Your task to perform on an android device: Show me popular videos on Youtube Image 0: 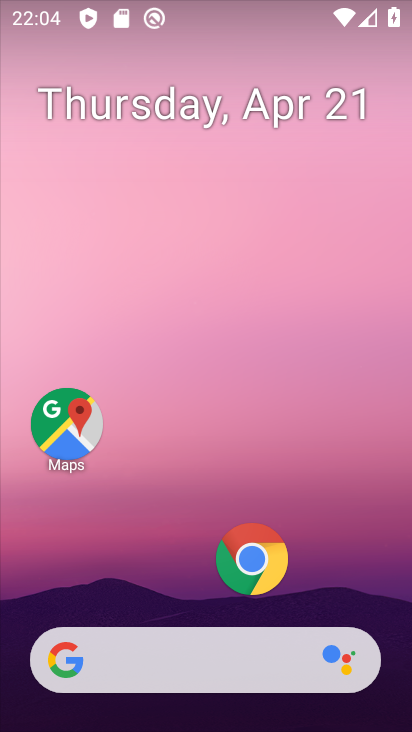
Step 0: drag from (151, 583) to (168, 80)
Your task to perform on an android device: Show me popular videos on Youtube Image 1: 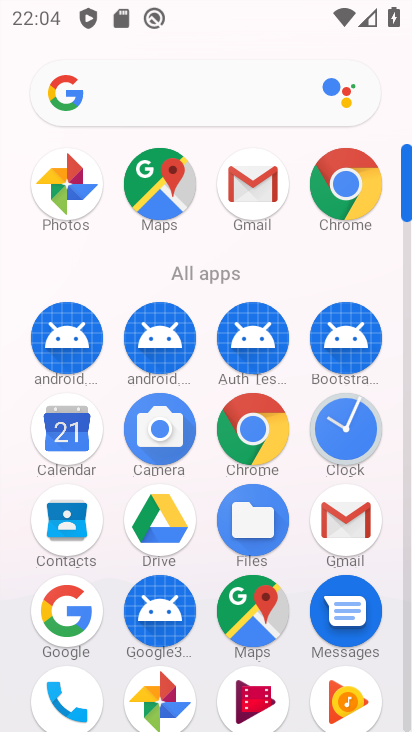
Step 1: drag from (202, 671) to (205, 323)
Your task to perform on an android device: Show me popular videos on Youtube Image 2: 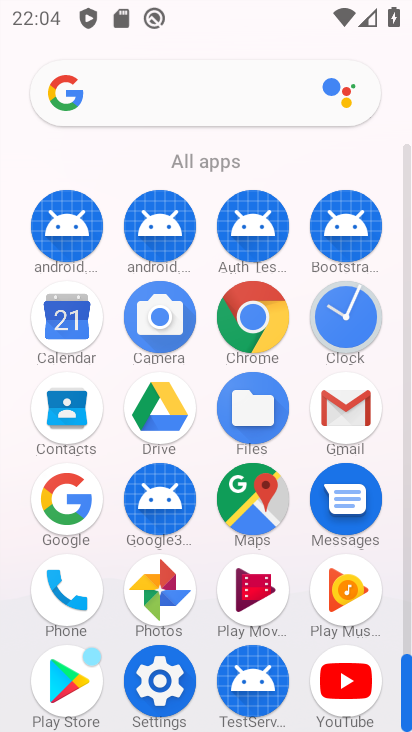
Step 2: click (350, 670)
Your task to perform on an android device: Show me popular videos on Youtube Image 3: 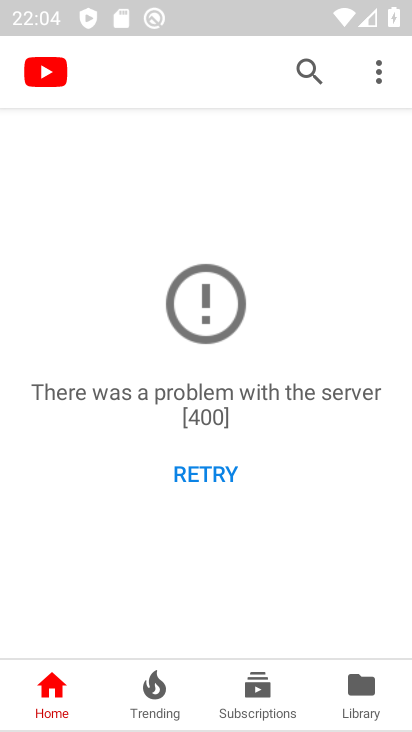
Step 3: task complete